Your task to perform on an android device: delete browsing data in the chrome app Image 0: 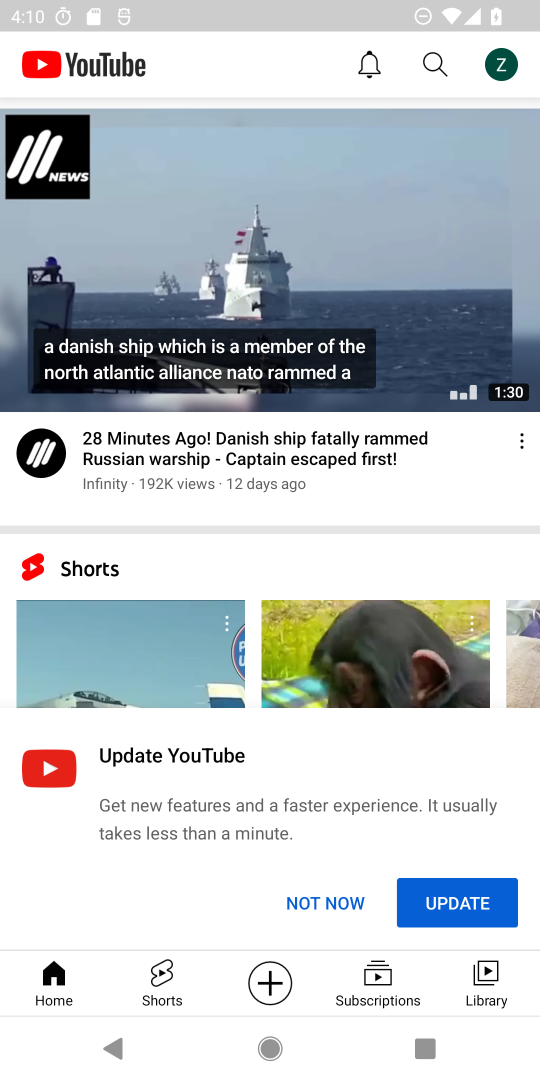
Step 0: press home button
Your task to perform on an android device: delete browsing data in the chrome app Image 1: 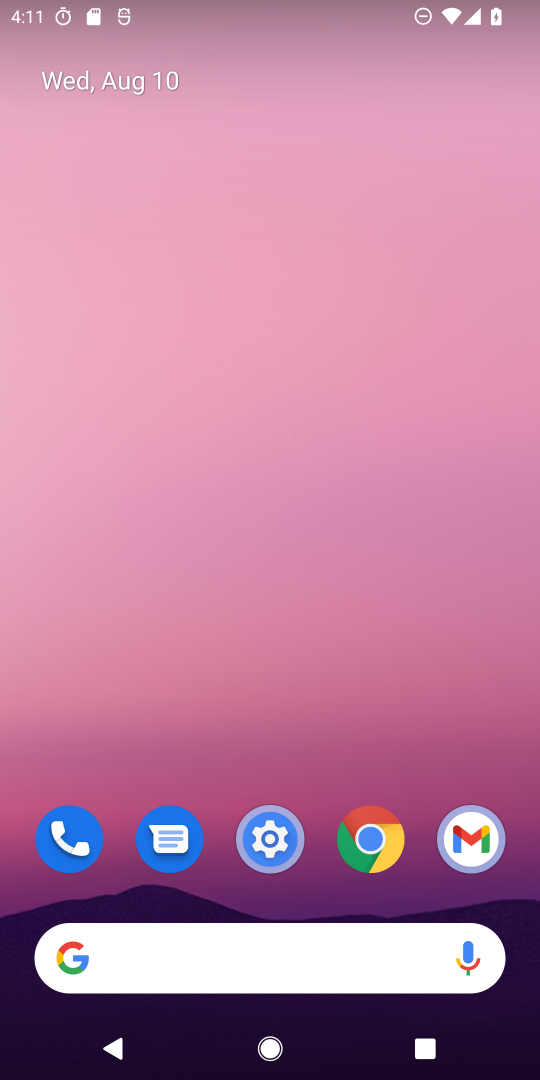
Step 1: click (363, 850)
Your task to perform on an android device: delete browsing data in the chrome app Image 2: 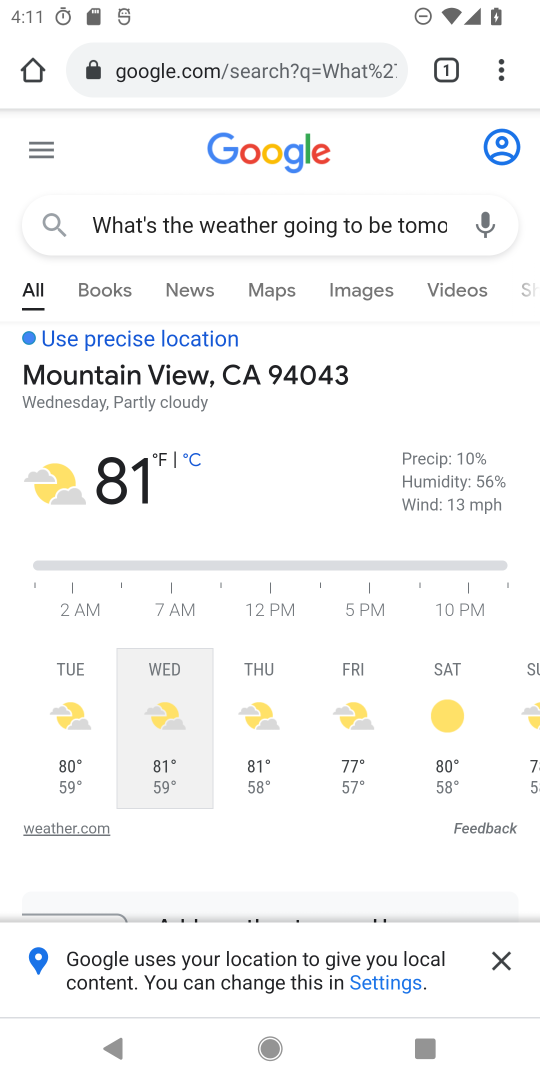
Step 2: click (491, 66)
Your task to perform on an android device: delete browsing data in the chrome app Image 3: 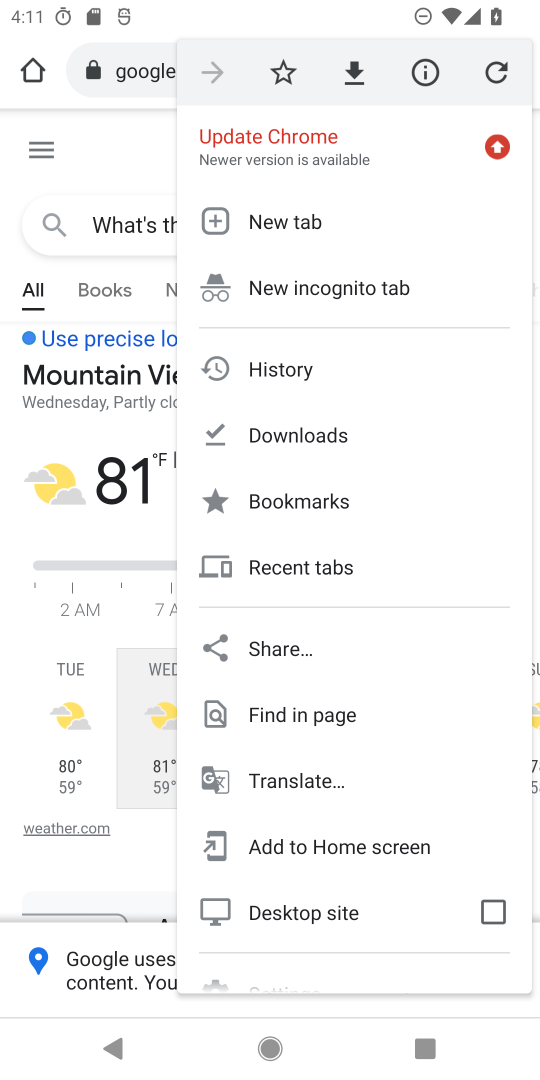
Step 3: drag from (437, 734) to (413, 617)
Your task to perform on an android device: delete browsing data in the chrome app Image 4: 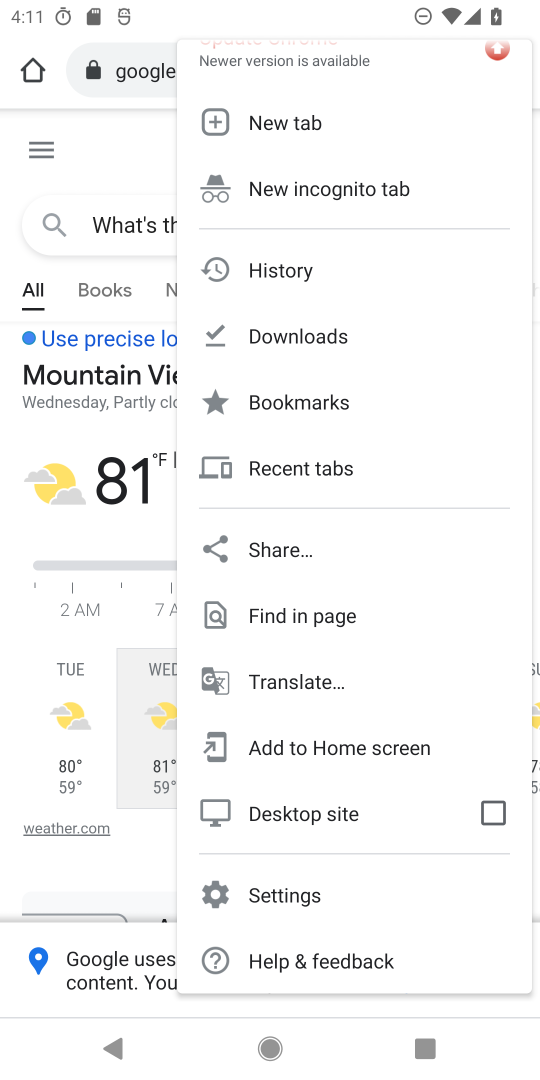
Step 4: click (306, 896)
Your task to perform on an android device: delete browsing data in the chrome app Image 5: 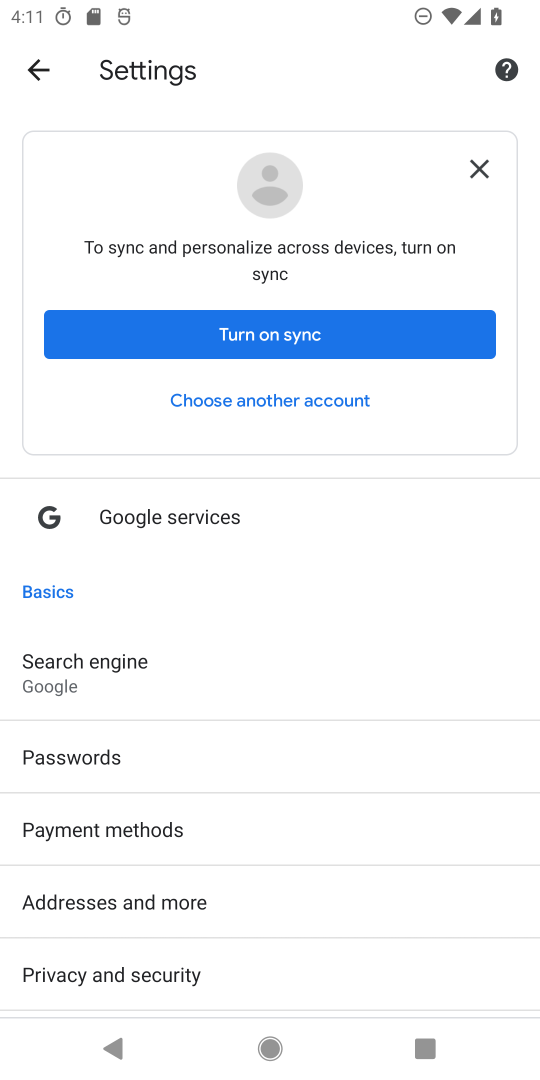
Step 5: click (481, 169)
Your task to perform on an android device: delete browsing data in the chrome app Image 6: 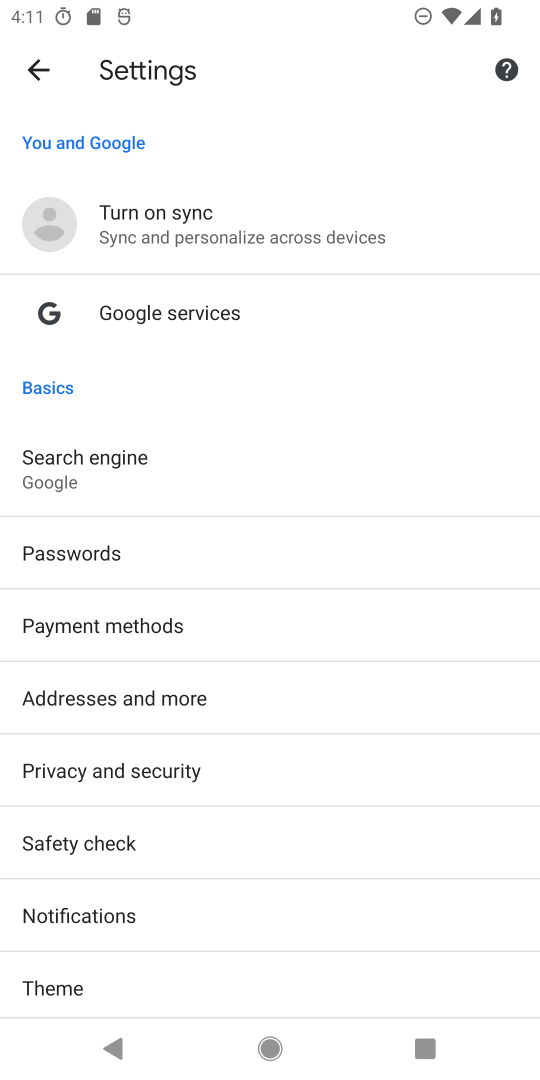
Step 6: drag from (254, 882) to (277, 545)
Your task to perform on an android device: delete browsing data in the chrome app Image 7: 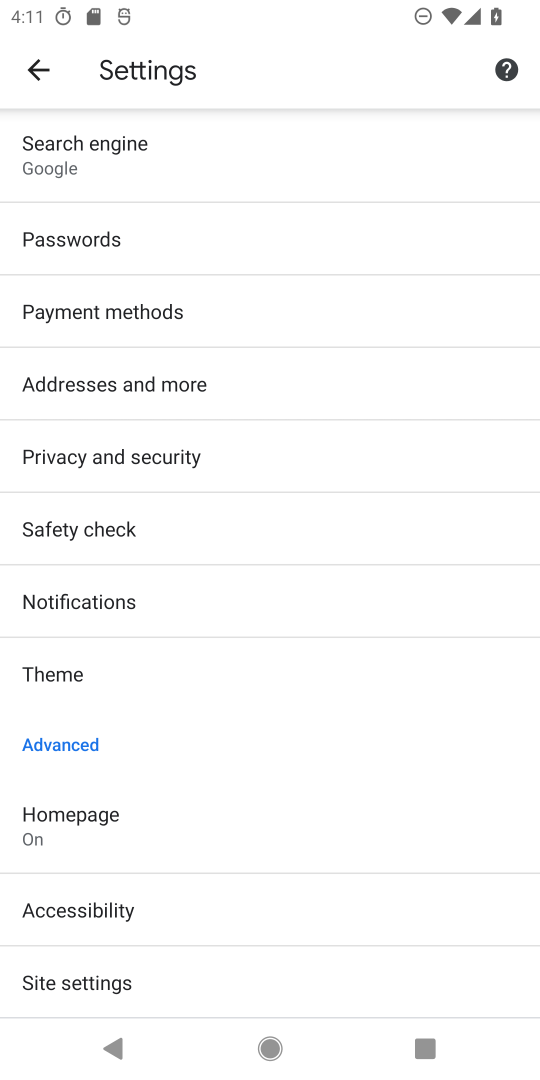
Step 7: click (36, 78)
Your task to perform on an android device: delete browsing data in the chrome app Image 8: 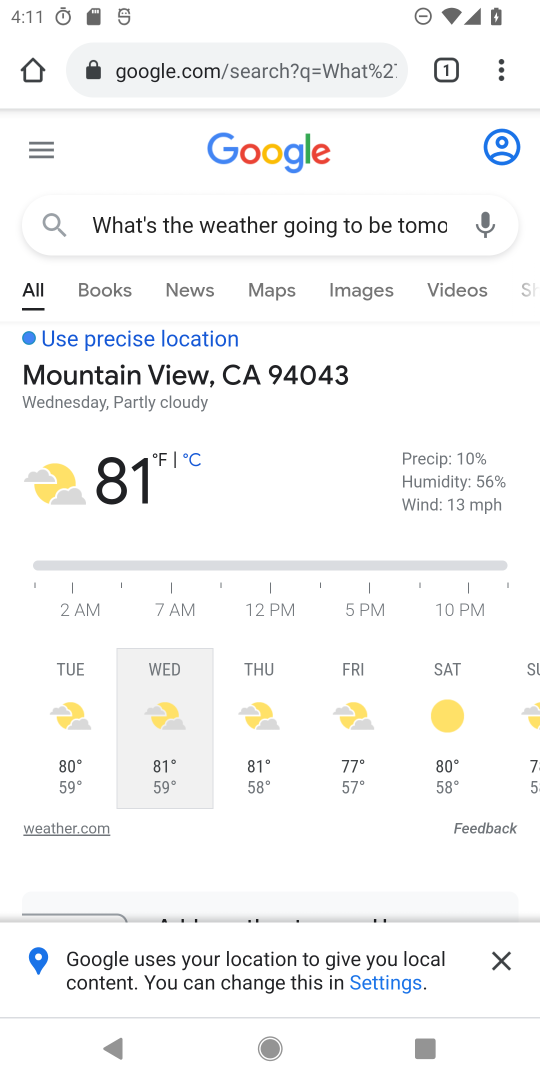
Step 8: click (509, 78)
Your task to perform on an android device: delete browsing data in the chrome app Image 9: 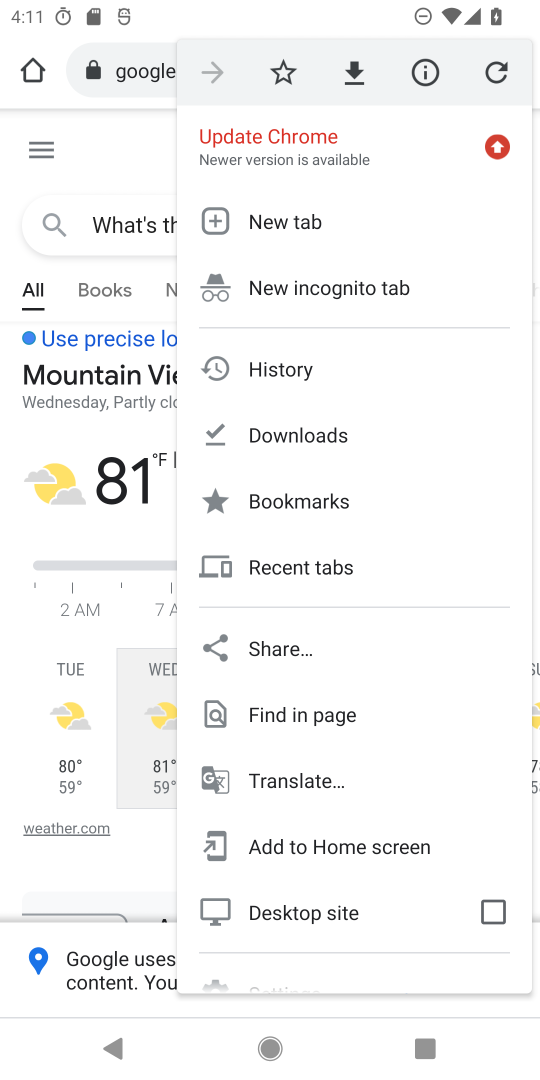
Step 9: click (332, 376)
Your task to perform on an android device: delete browsing data in the chrome app Image 10: 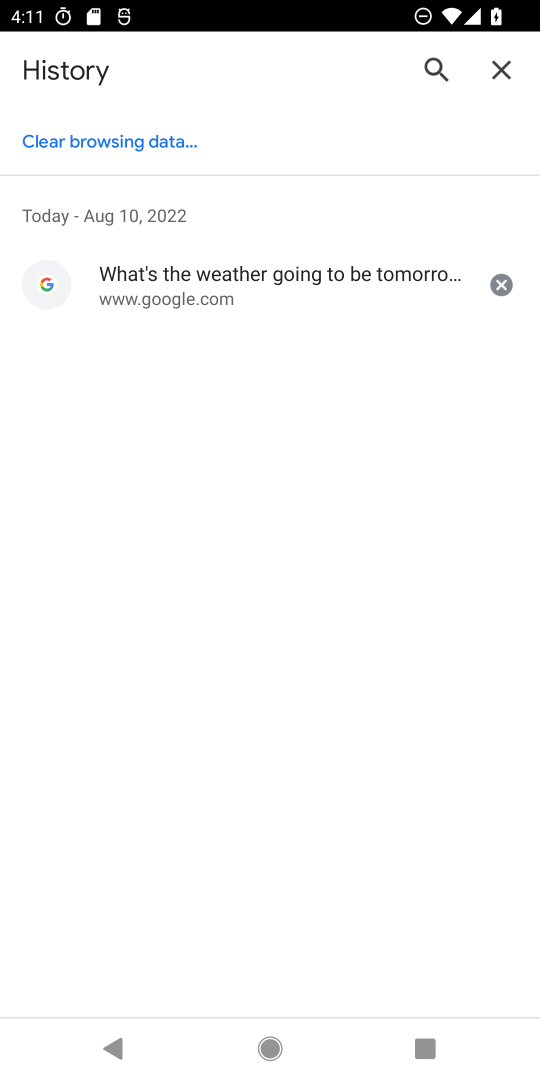
Step 10: click (88, 126)
Your task to perform on an android device: delete browsing data in the chrome app Image 11: 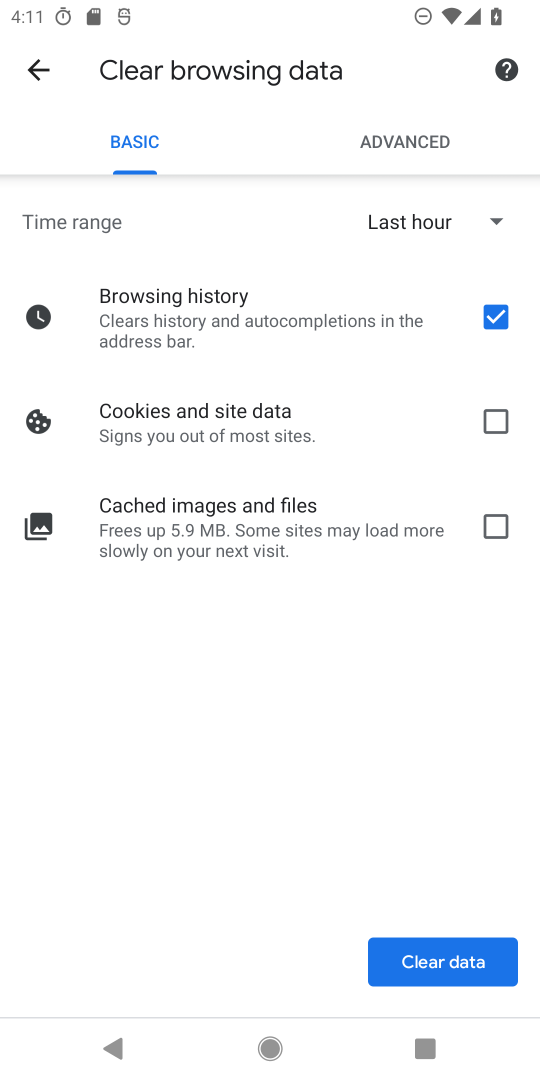
Step 11: click (445, 968)
Your task to perform on an android device: delete browsing data in the chrome app Image 12: 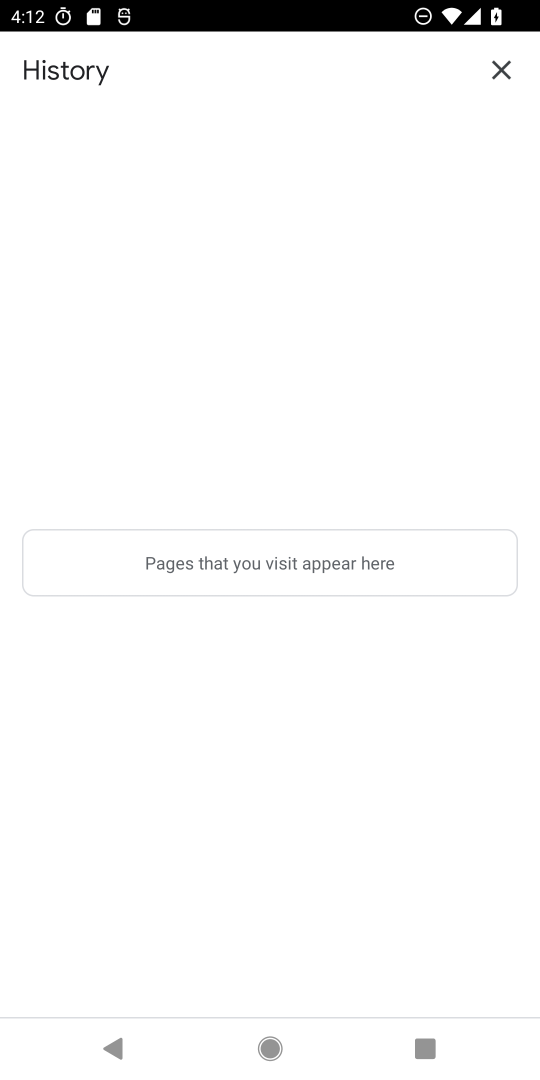
Step 12: task complete